Your task to perform on an android device: turn on javascript in the chrome app Image 0: 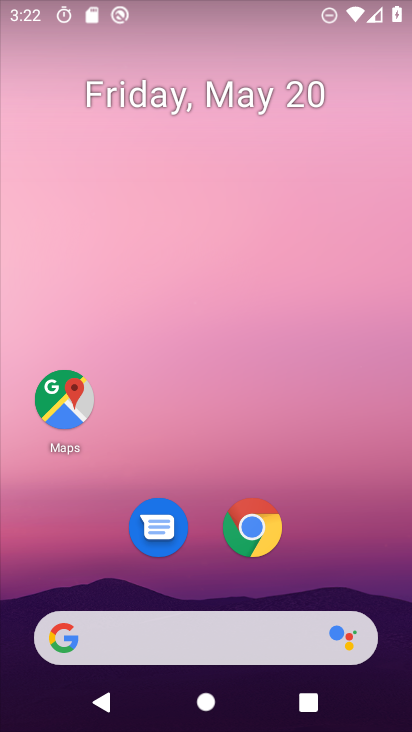
Step 0: click (249, 535)
Your task to perform on an android device: turn on javascript in the chrome app Image 1: 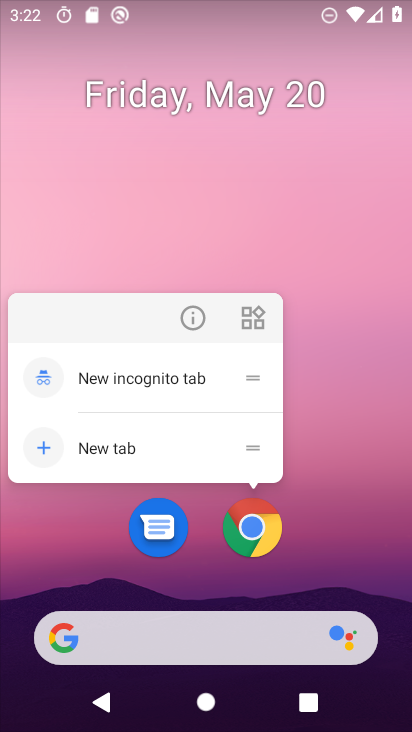
Step 1: click (274, 531)
Your task to perform on an android device: turn on javascript in the chrome app Image 2: 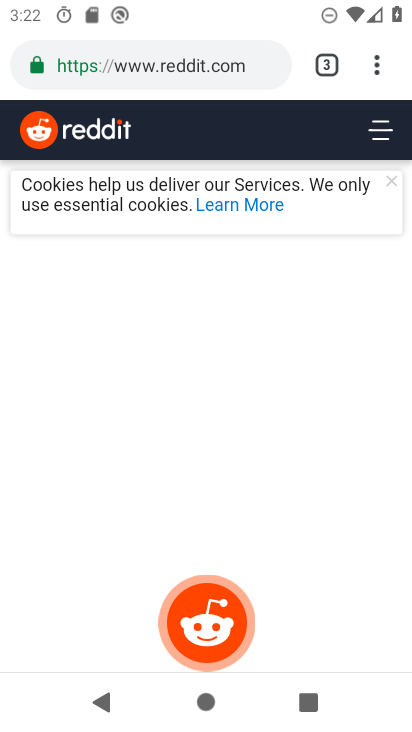
Step 2: drag from (375, 60) to (142, 573)
Your task to perform on an android device: turn on javascript in the chrome app Image 3: 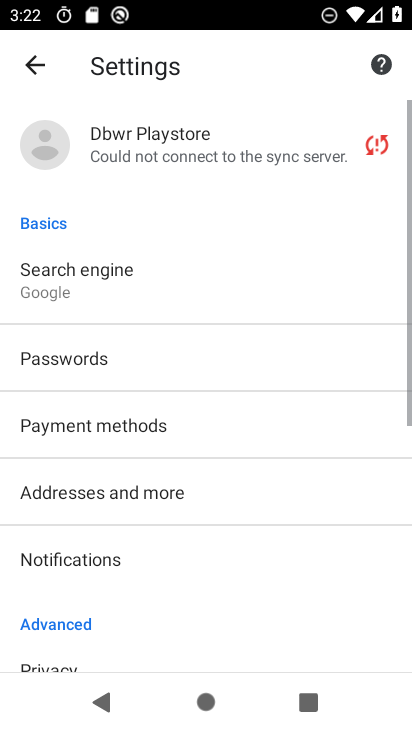
Step 3: drag from (125, 629) to (206, 90)
Your task to perform on an android device: turn on javascript in the chrome app Image 4: 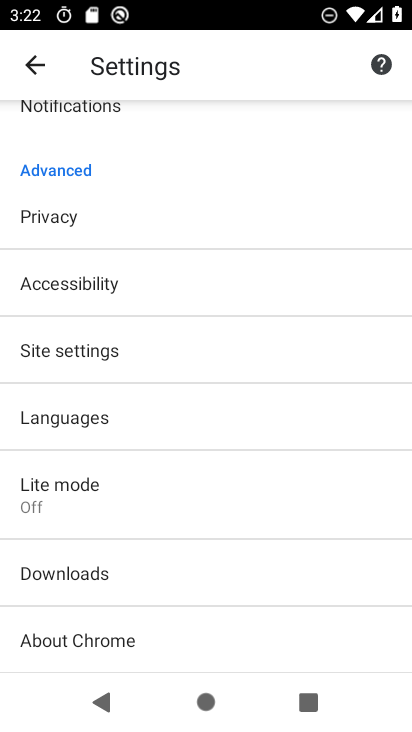
Step 4: click (86, 359)
Your task to perform on an android device: turn on javascript in the chrome app Image 5: 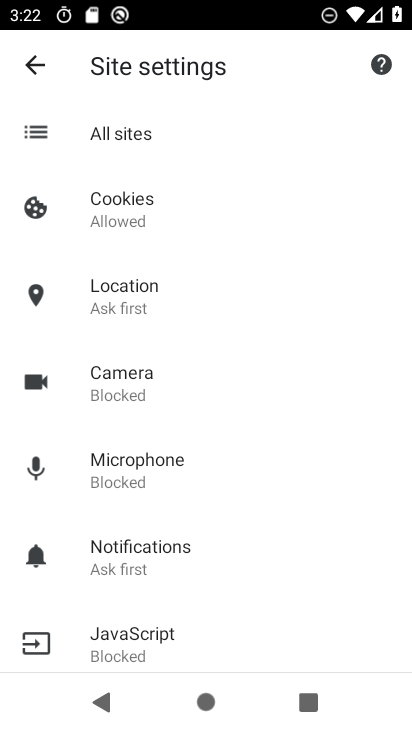
Step 5: click (139, 625)
Your task to perform on an android device: turn on javascript in the chrome app Image 6: 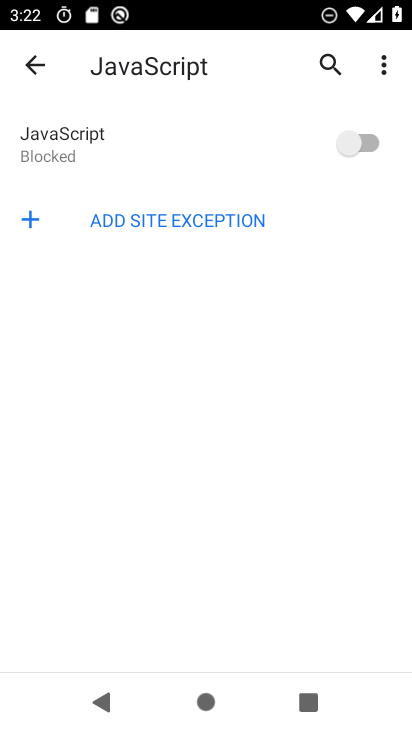
Step 6: click (357, 146)
Your task to perform on an android device: turn on javascript in the chrome app Image 7: 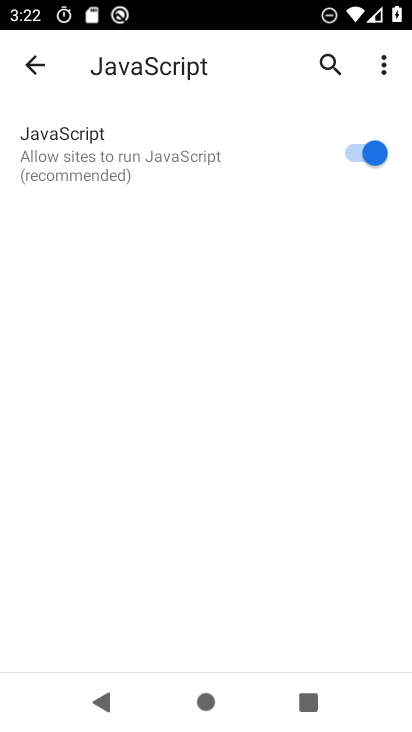
Step 7: task complete